Your task to perform on an android device: Open Chrome and go to settings Image 0: 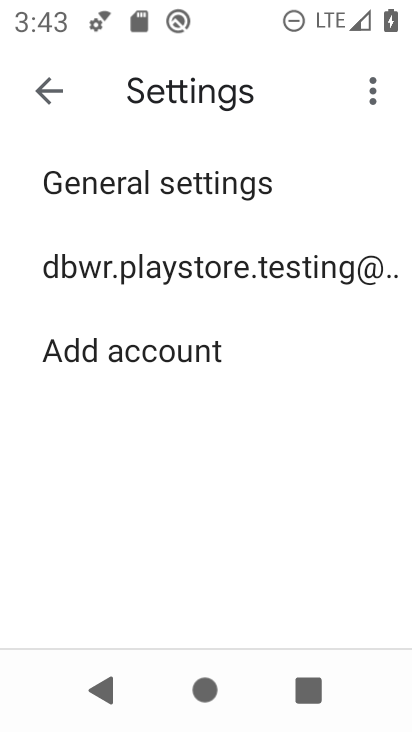
Step 0: press home button
Your task to perform on an android device: Open Chrome and go to settings Image 1: 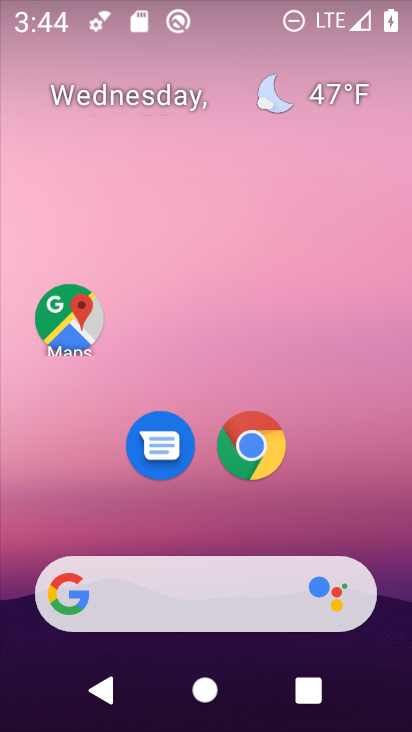
Step 1: click (256, 451)
Your task to perform on an android device: Open Chrome and go to settings Image 2: 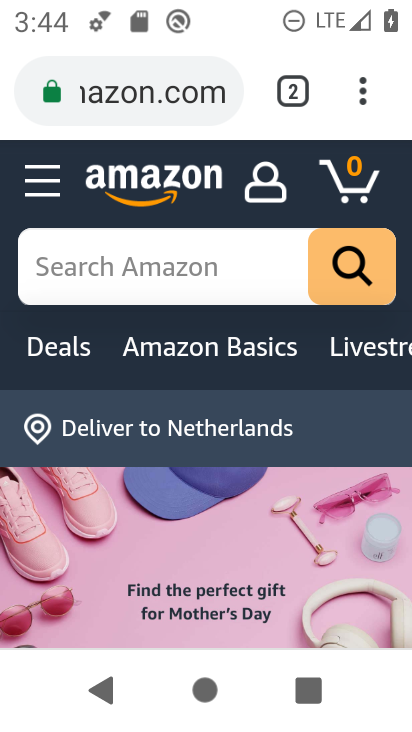
Step 2: click (376, 94)
Your task to perform on an android device: Open Chrome and go to settings Image 3: 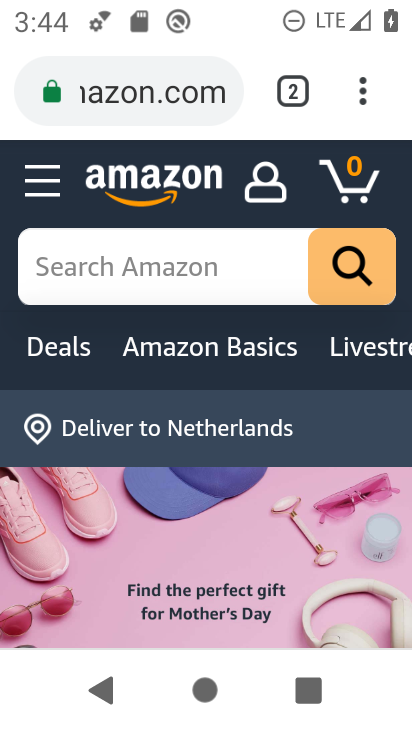
Step 3: click (376, 94)
Your task to perform on an android device: Open Chrome and go to settings Image 4: 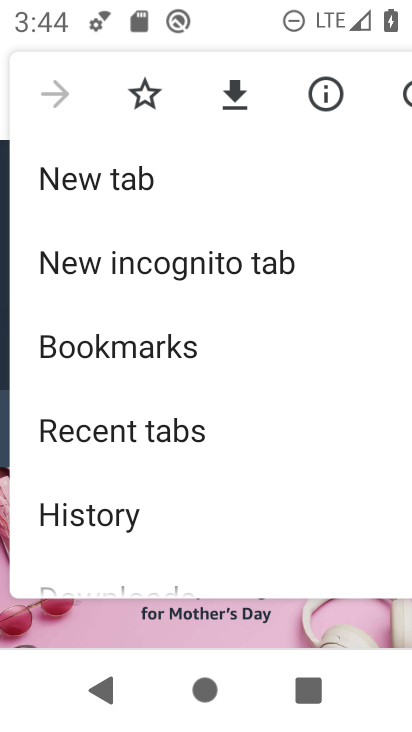
Step 4: drag from (168, 521) to (252, 258)
Your task to perform on an android device: Open Chrome and go to settings Image 5: 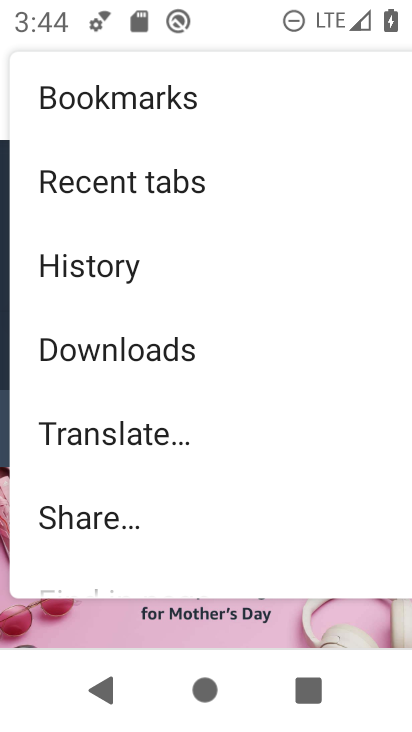
Step 5: drag from (240, 448) to (301, 223)
Your task to perform on an android device: Open Chrome and go to settings Image 6: 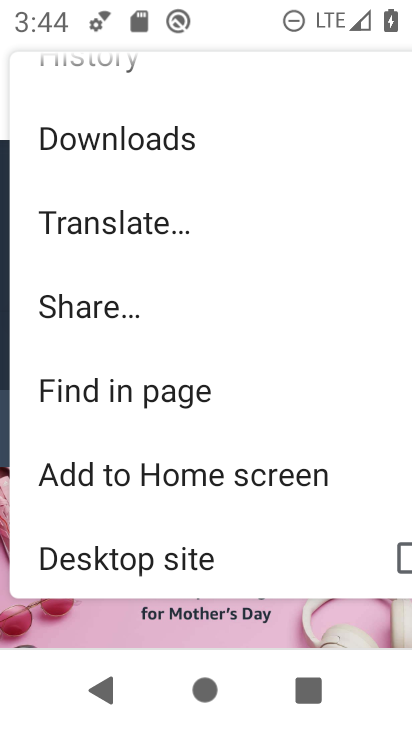
Step 6: drag from (235, 427) to (297, 283)
Your task to perform on an android device: Open Chrome and go to settings Image 7: 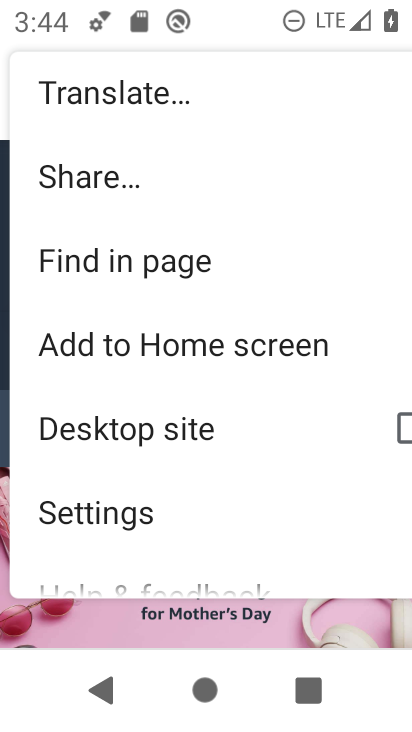
Step 7: drag from (228, 477) to (275, 280)
Your task to perform on an android device: Open Chrome and go to settings Image 8: 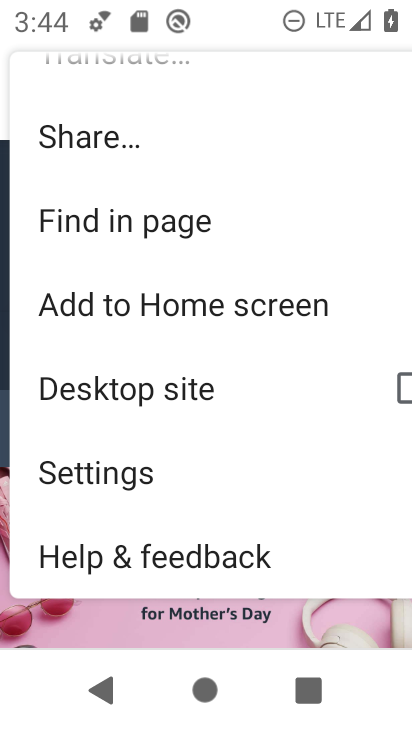
Step 8: click (136, 467)
Your task to perform on an android device: Open Chrome and go to settings Image 9: 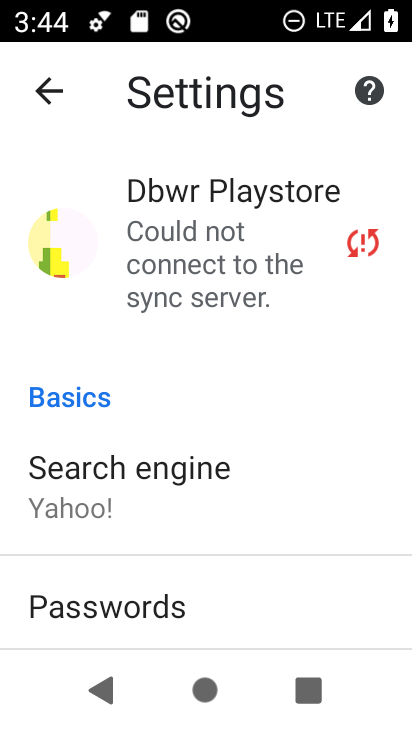
Step 9: task complete